Your task to perform on an android device: check battery use Image 0: 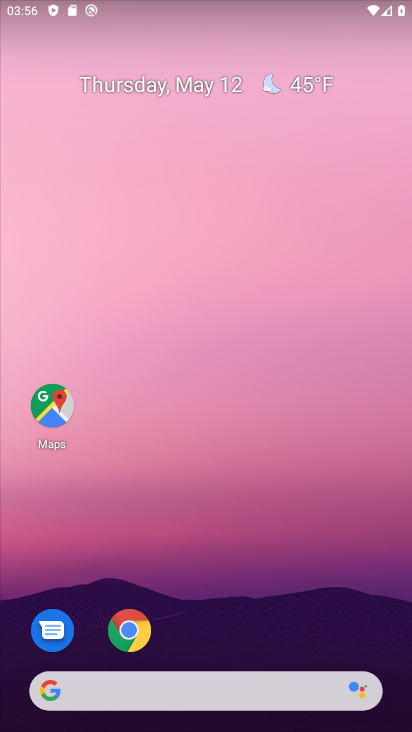
Step 0: drag from (171, 640) to (321, 28)
Your task to perform on an android device: check battery use Image 1: 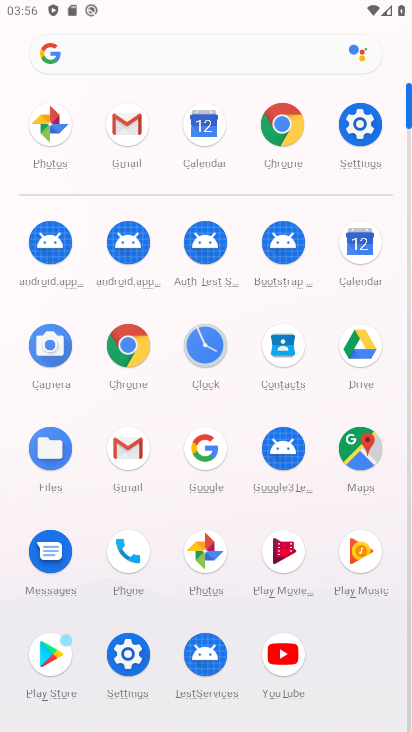
Step 1: click (350, 141)
Your task to perform on an android device: check battery use Image 2: 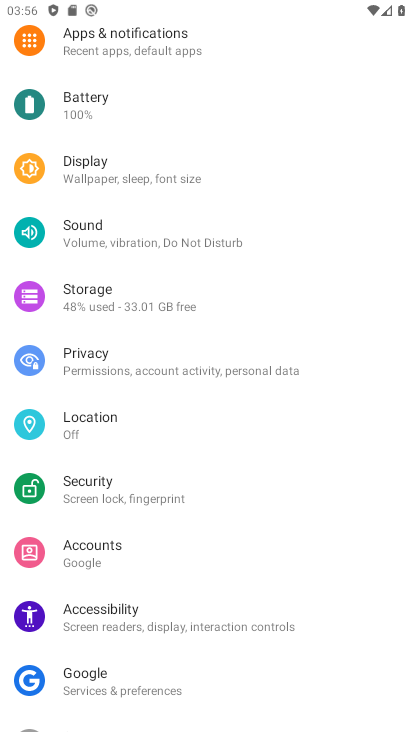
Step 2: click (122, 99)
Your task to perform on an android device: check battery use Image 3: 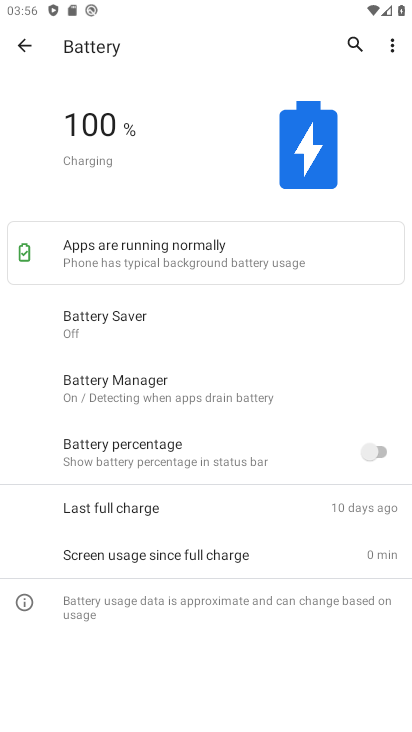
Step 3: click (394, 52)
Your task to perform on an android device: check battery use Image 4: 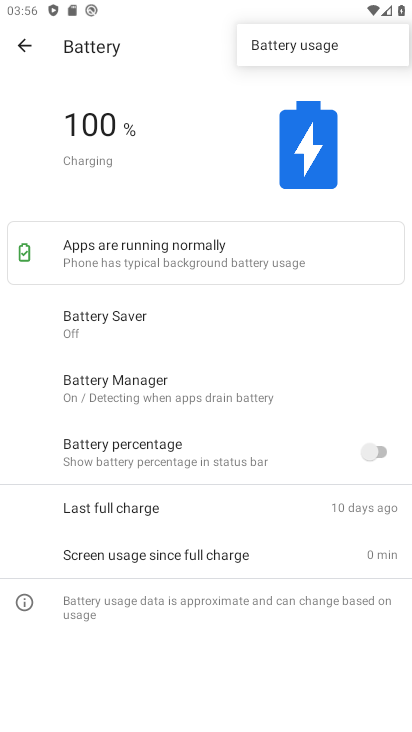
Step 4: click (293, 46)
Your task to perform on an android device: check battery use Image 5: 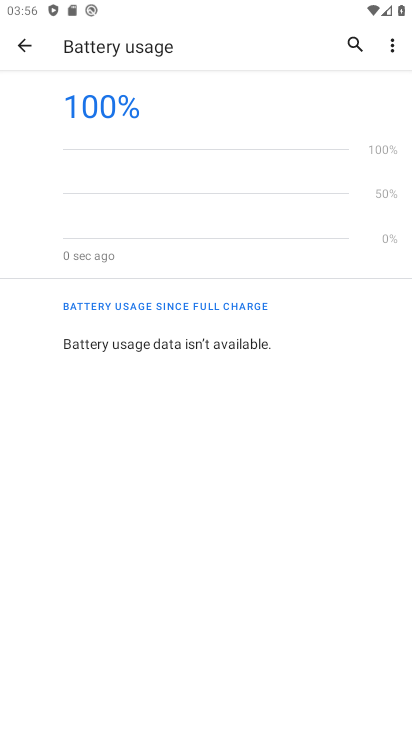
Step 5: task complete